Your task to perform on an android device: install app "Spotify: Music and Podcasts" Image 0: 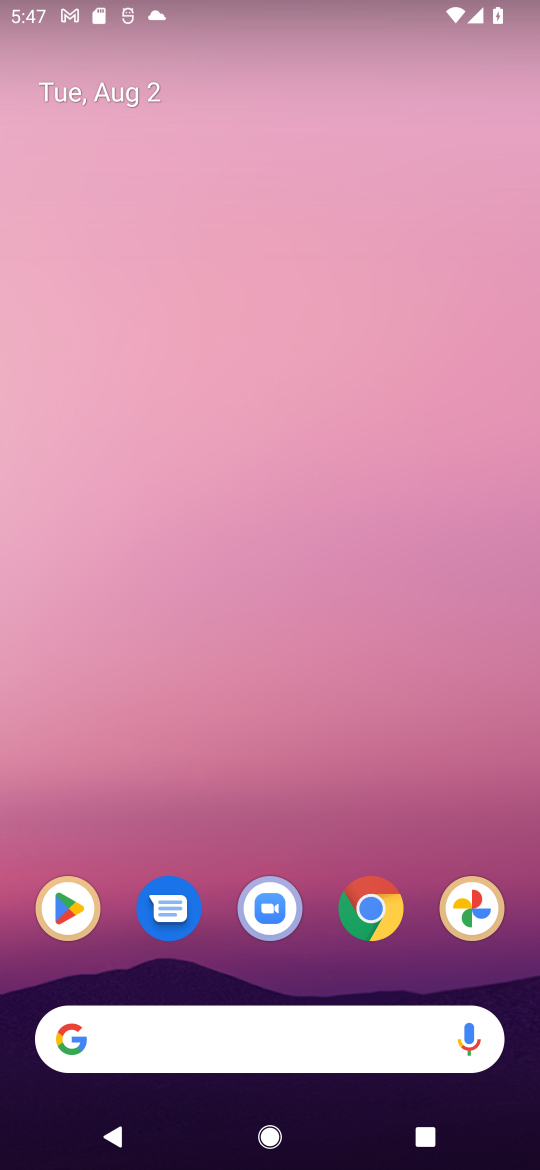
Step 0: click (61, 904)
Your task to perform on an android device: install app "Spotify: Music and Podcasts" Image 1: 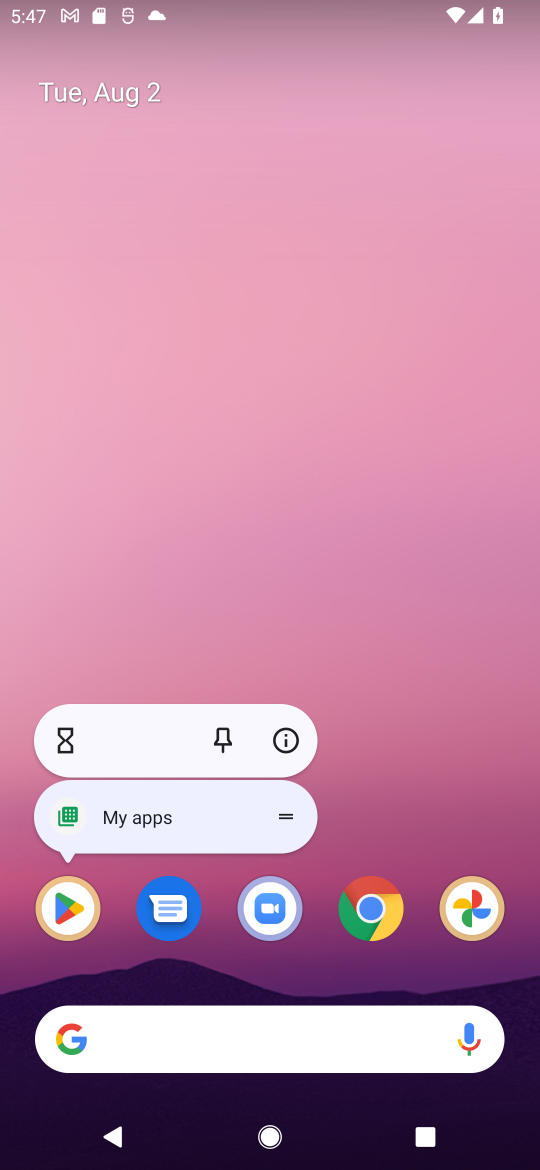
Step 1: click (60, 899)
Your task to perform on an android device: install app "Spotify: Music and Podcasts" Image 2: 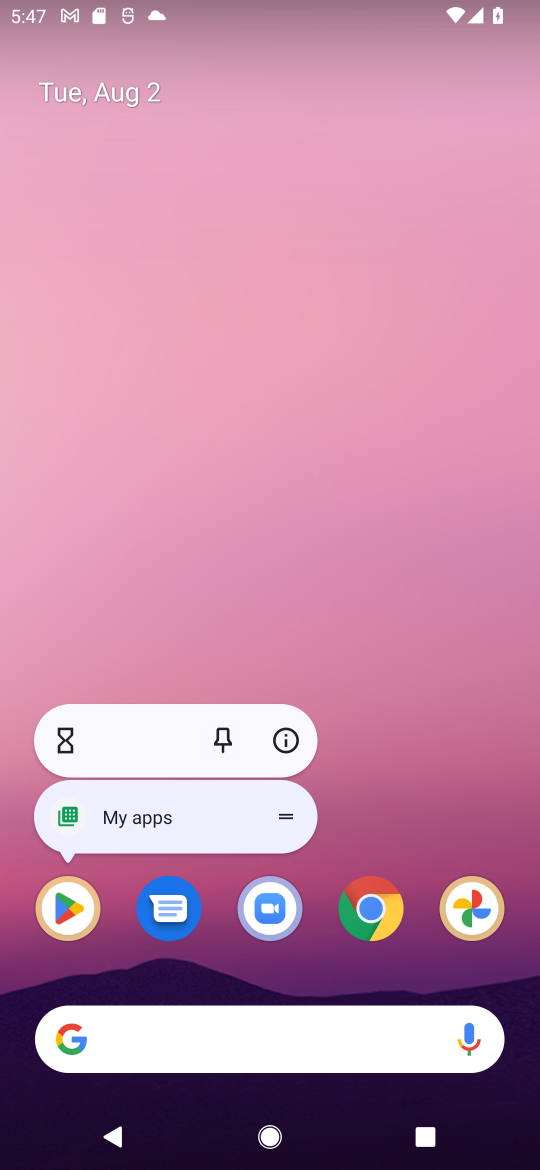
Step 2: click (60, 899)
Your task to perform on an android device: install app "Spotify: Music and Podcasts" Image 3: 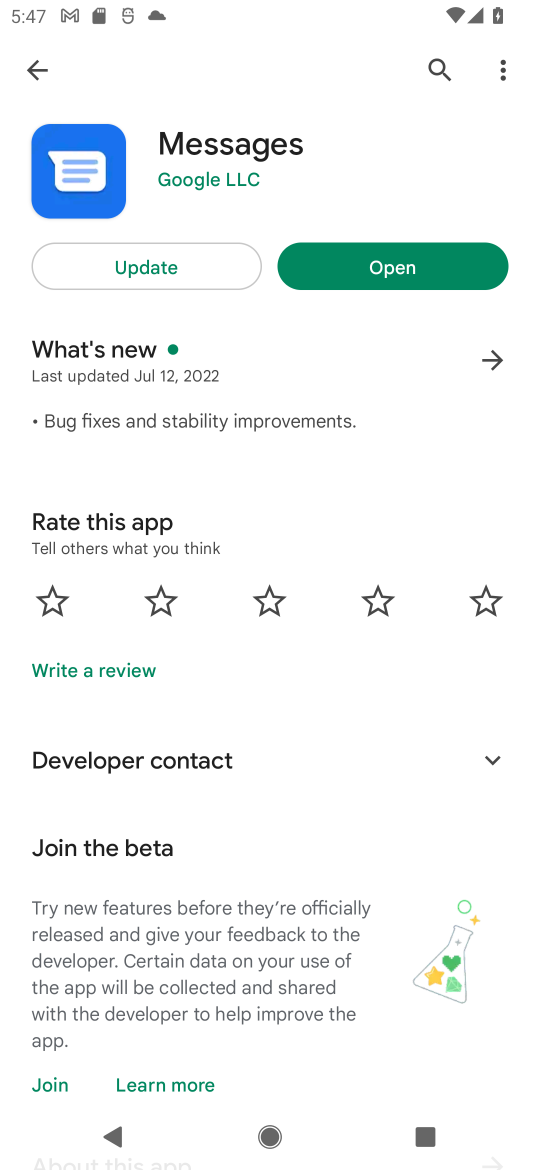
Step 3: click (429, 67)
Your task to perform on an android device: install app "Spotify: Music and Podcasts" Image 4: 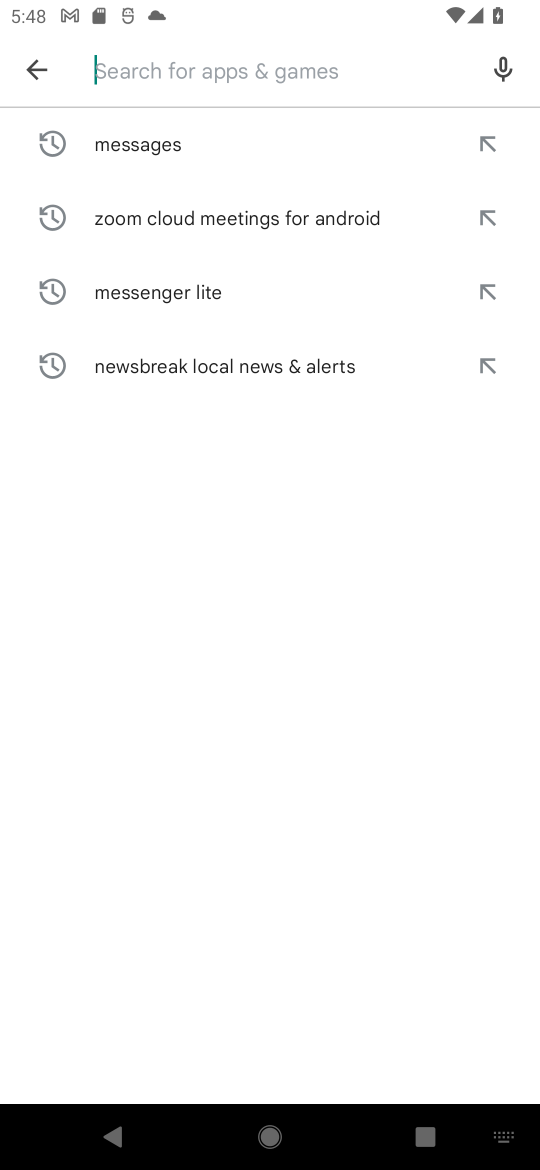
Step 4: type "Spotify: Music a'nd Podcasts"
Your task to perform on an android device: install app "Spotify: Music and Podcasts" Image 5: 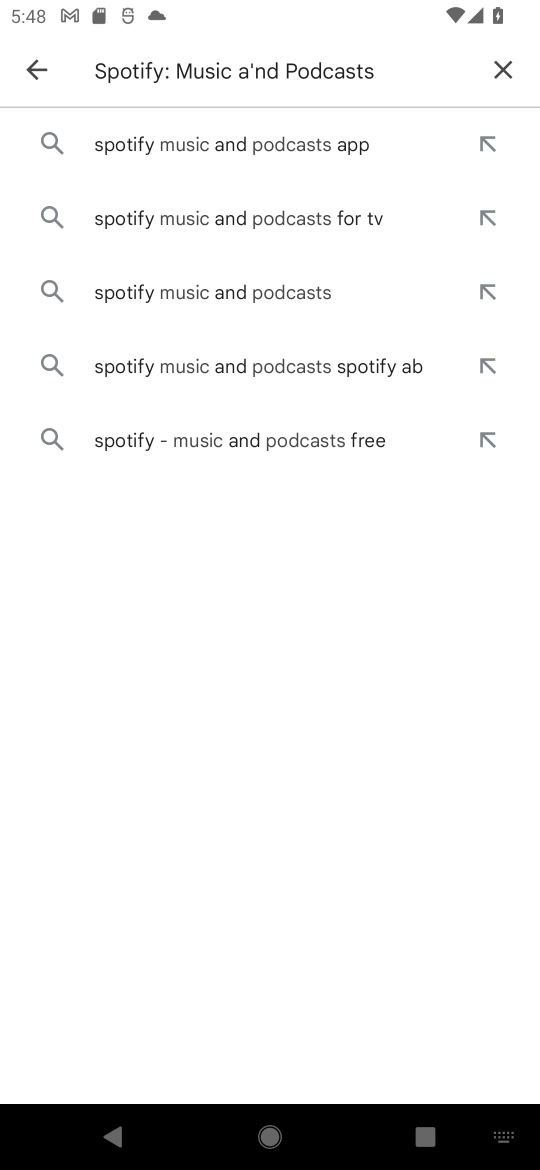
Step 5: click (293, 148)
Your task to perform on an android device: install app "Spotify: Music and Podcasts" Image 6: 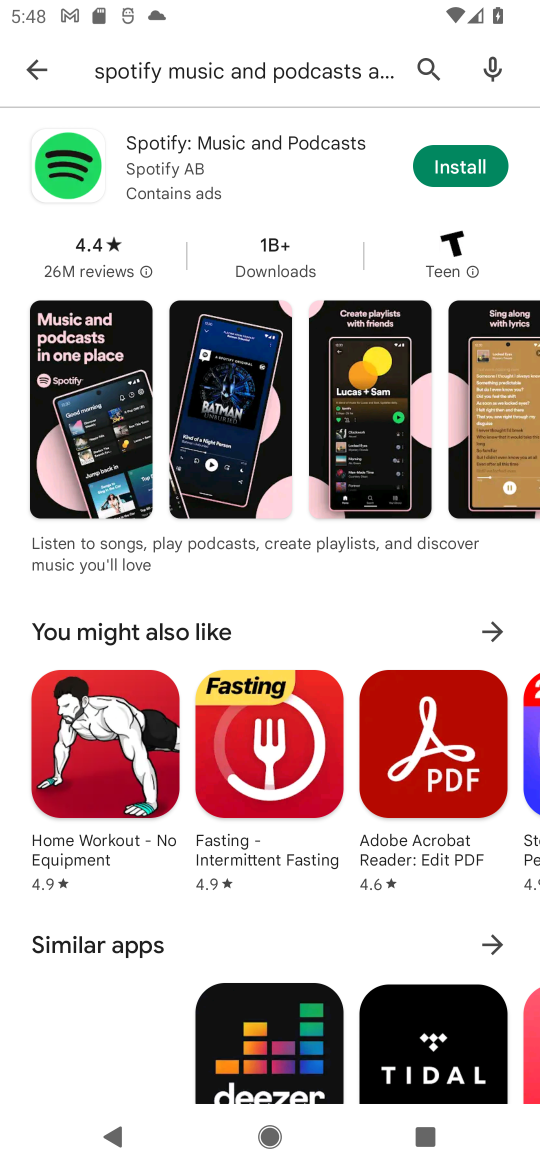
Step 6: click (465, 165)
Your task to perform on an android device: install app "Spotify: Music and Podcasts" Image 7: 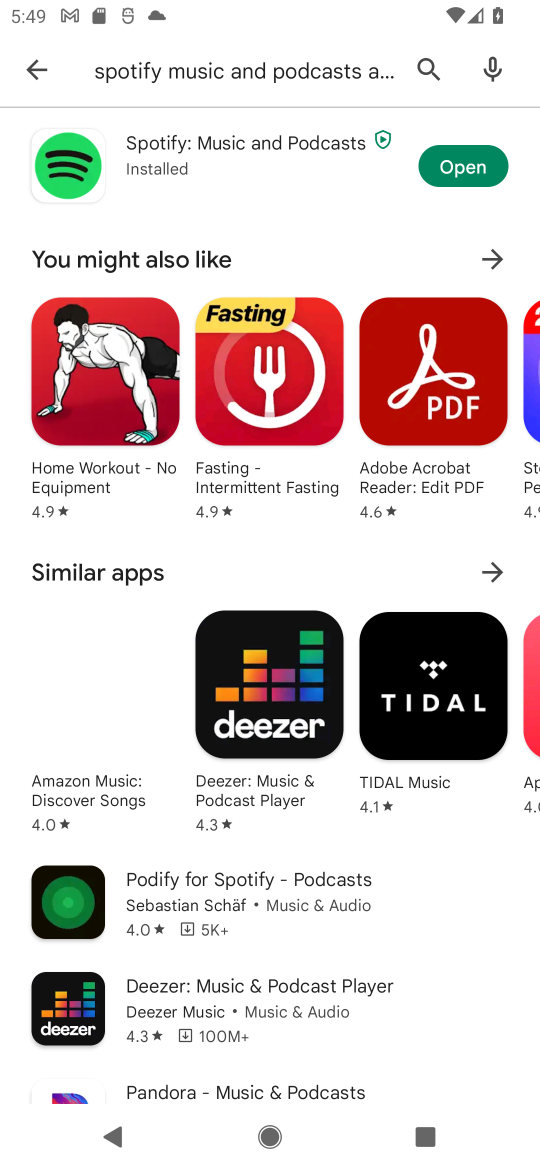
Step 7: click (464, 155)
Your task to perform on an android device: install app "Spotify: Music and Podcasts" Image 8: 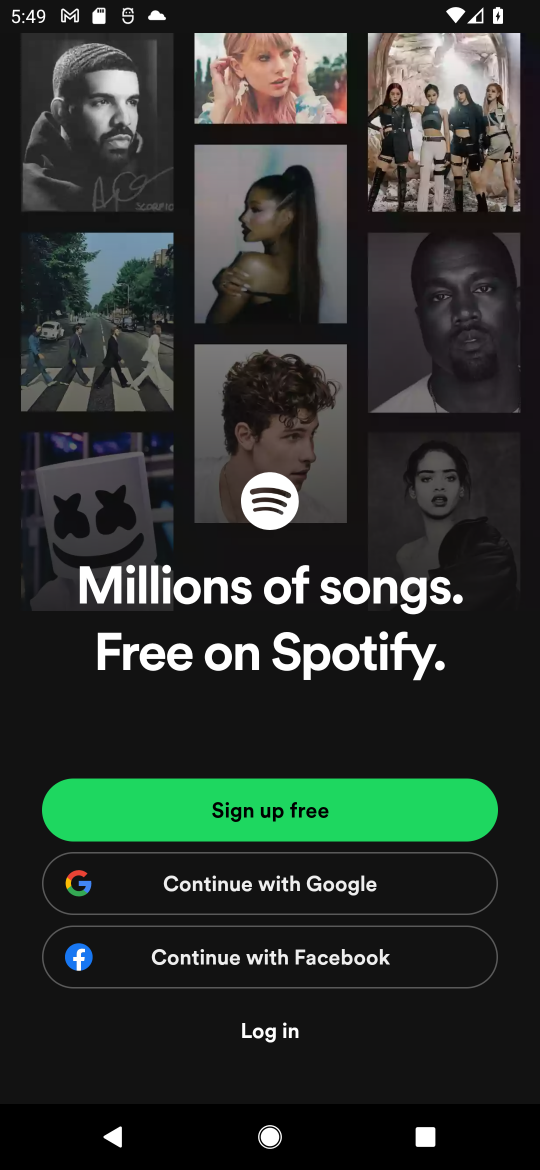
Step 8: click (288, 877)
Your task to perform on an android device: install app "Spotify: Music and Podcasts" Image 9: 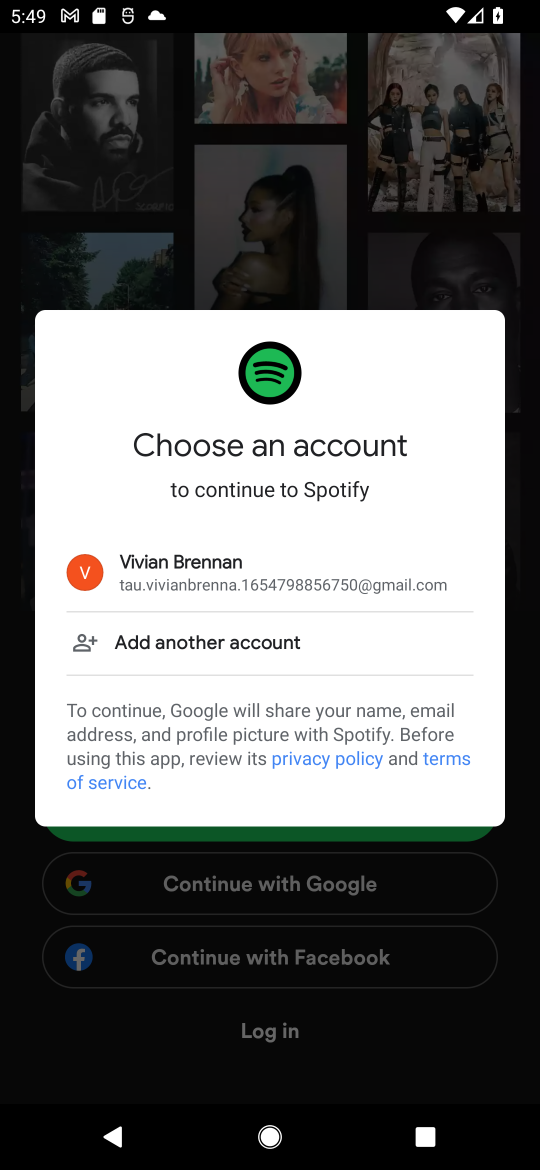
Step 9: click (194, 571)
Your task to perform on an android device: install app "Spotify: Music and Podcasts" Image 10: 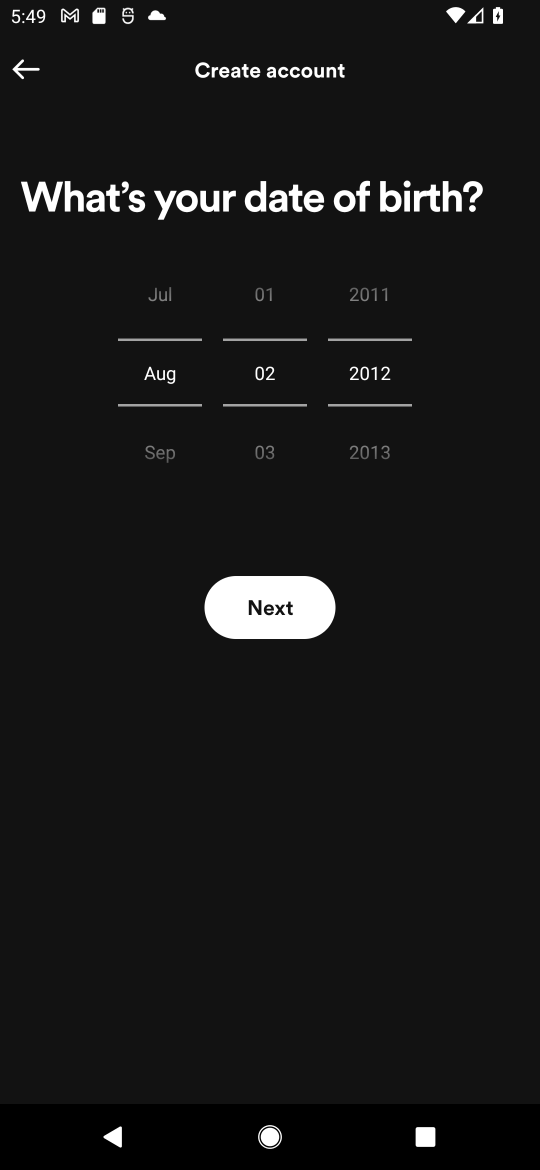
Step 10: drag from (368, 303) to (369, 519)
Your task to perform on an android device: install app "Spotify: Music and Podcasts" Image 11: 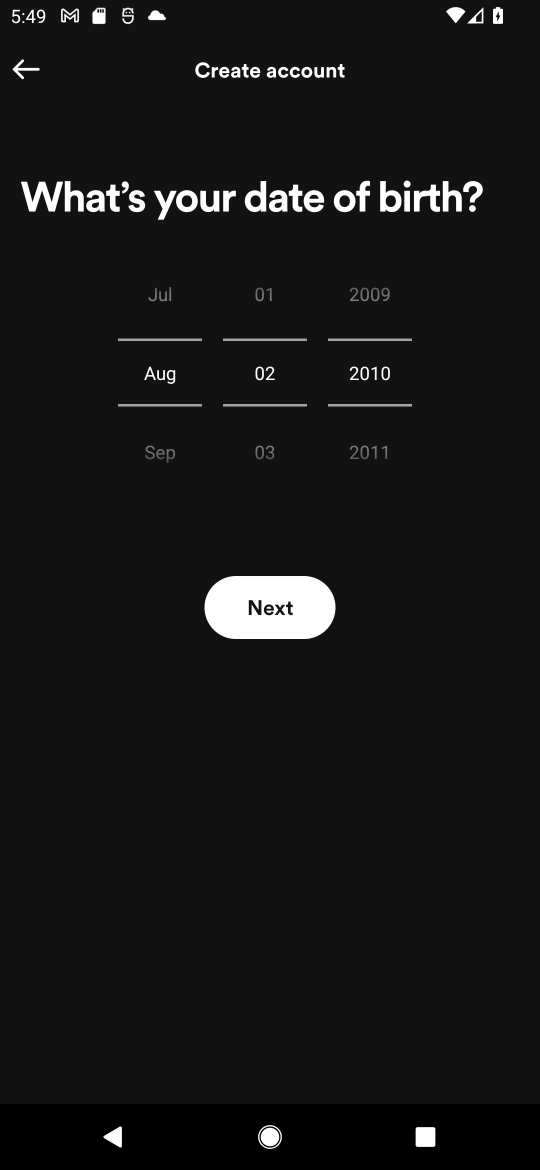
Step 11: drag from (358, 313) to (384, 522)
Your task to perform on an android device: install app "Spotify: Music and Podcasts" Image 12: 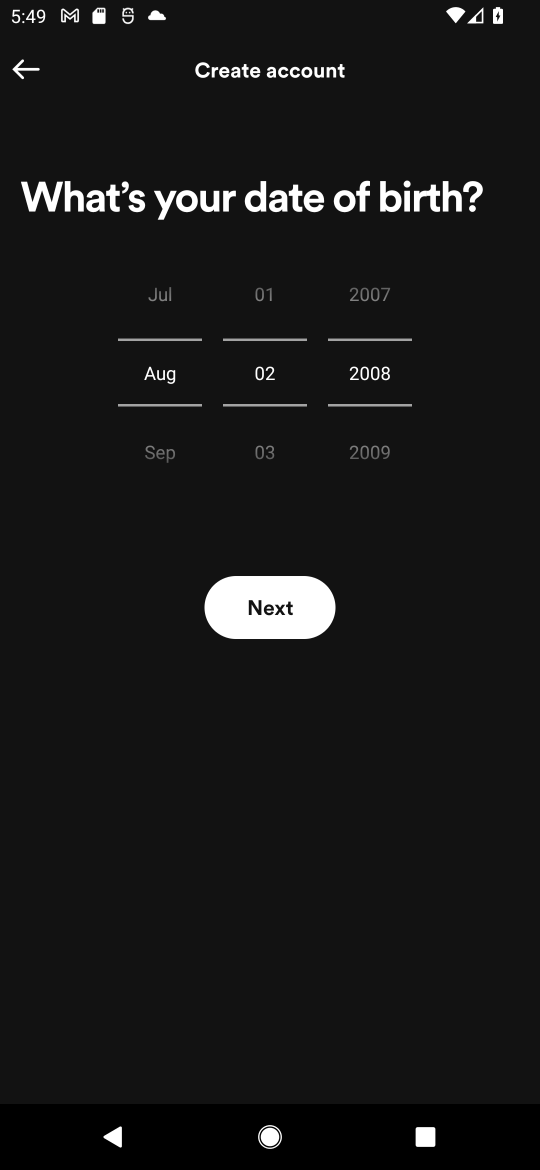
Step 12: drag from (367, 290) to (379, 589)
Your task to perform on an android device: install app "Spotify: Music and Podcasts" Image 13: 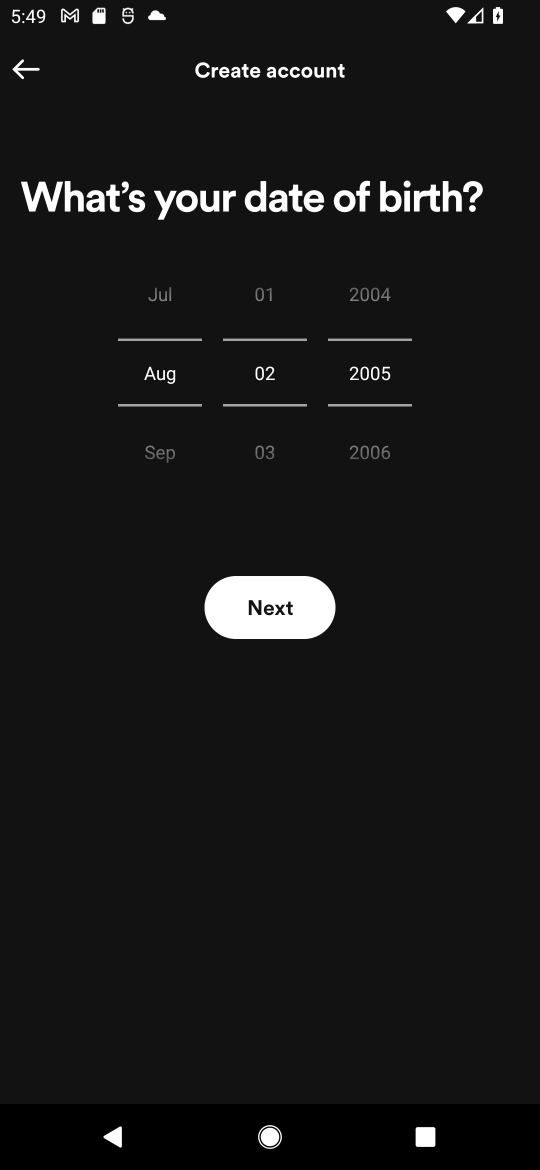
Step 13: drag from (375, 280) to (362, 622)
Your task to perform on an android device: install app "Spotify: Music and Podcasts" Image 14: 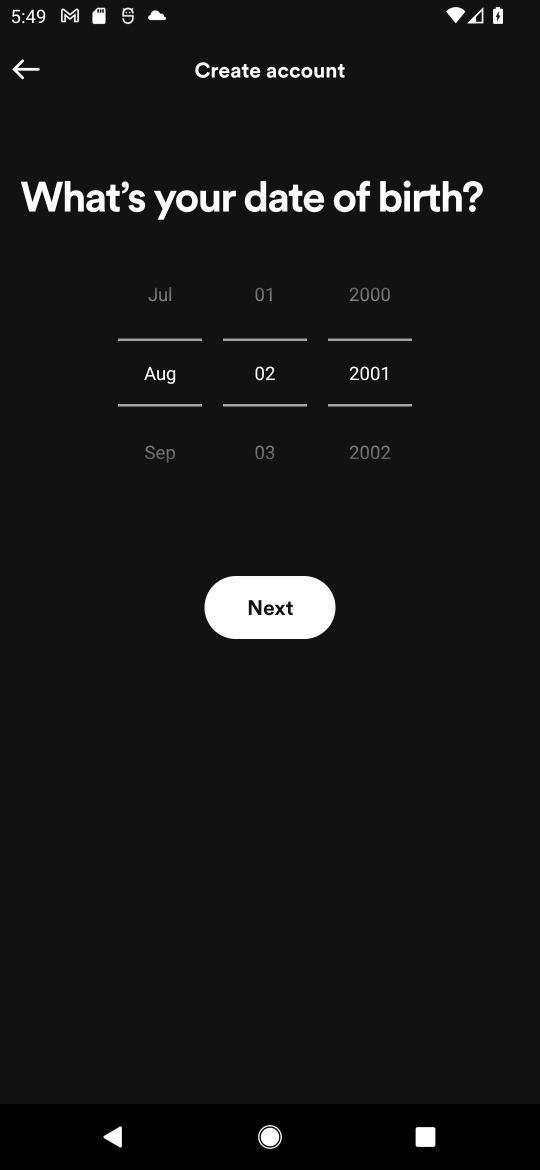
Step 14: drag from (372, 281) to (404, 669)
Your task to perform on an android device: install app "Spotify: Music and Podcasts" Image 15: 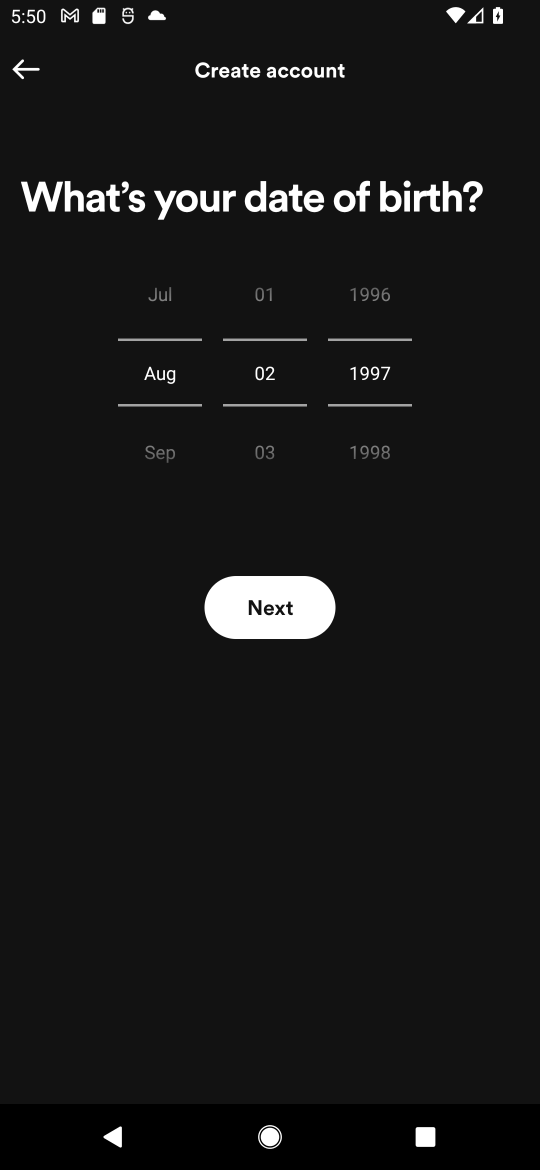
Step 15: drag from (382, 302) to (380, 571)
Your task to perform on an android device: install app "Spotify: Music and Podcasts" Image 16: 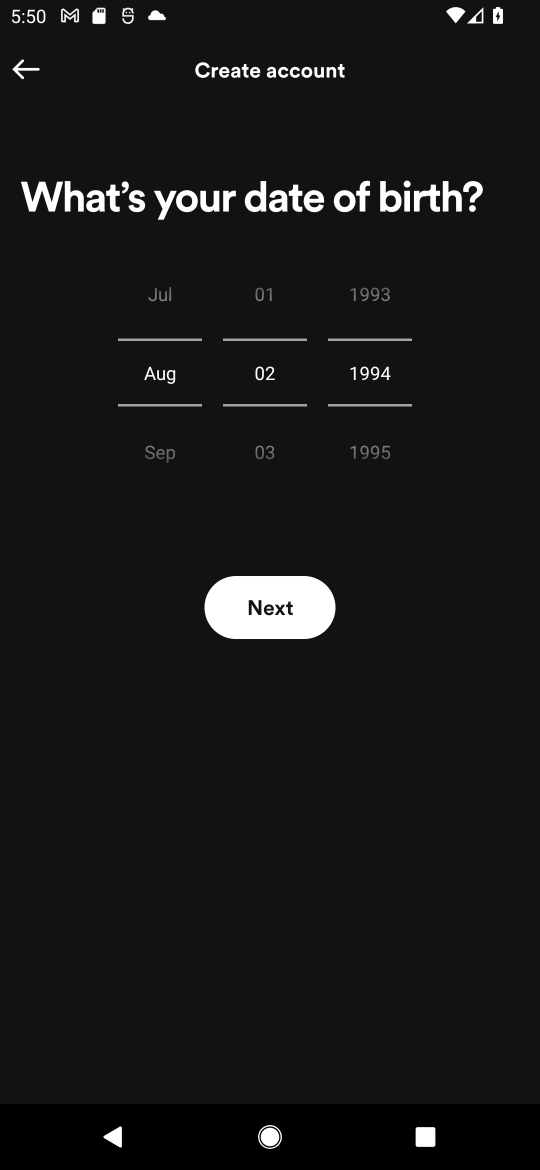
Step 16: click (269, 607)
Your task to perform on an android device: install app "Spotify: Music and Podcasts" Image 17: 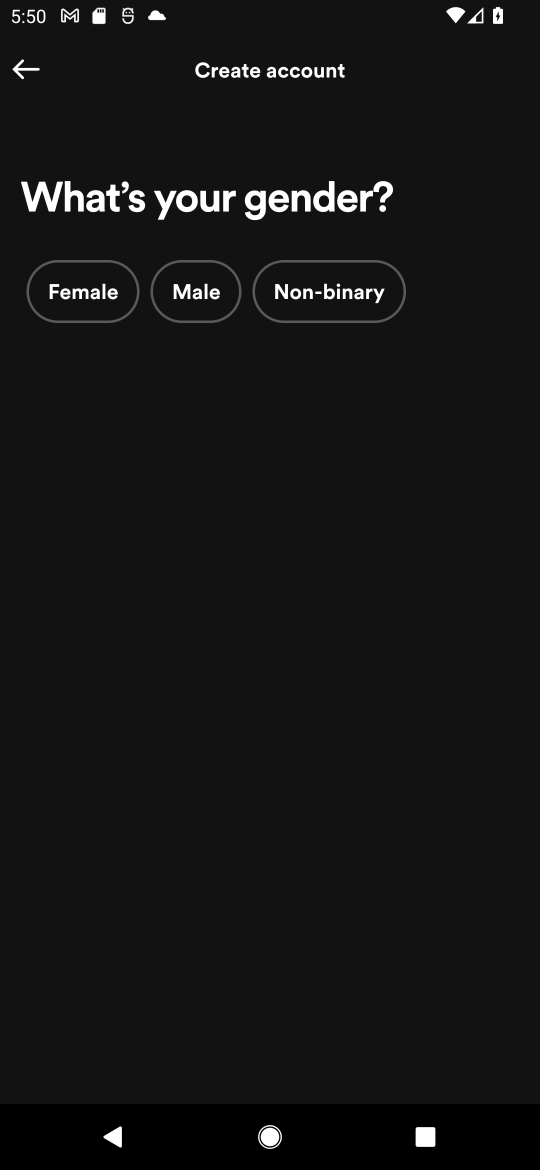
Step 17: click (197, 295)
Your task to perform on an android device: install app "Spotify: Music and Podcasts" Image 18: 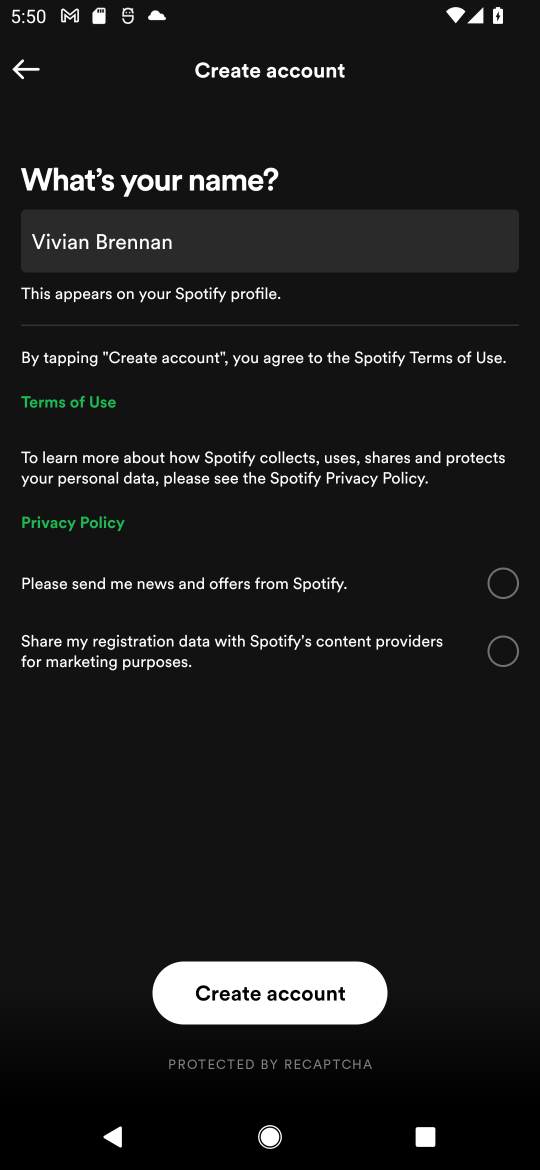
Step 18: task complete